Your task to perform on an android device: Open the map Image 0: 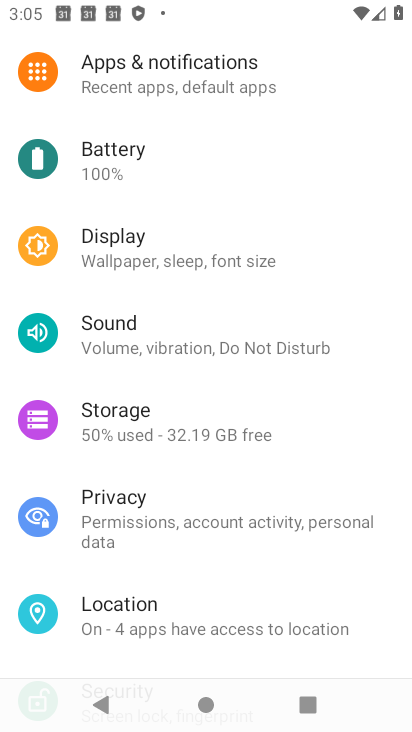
Step 0: press home button
Your task to perform on an android device: Open the map Image 1: 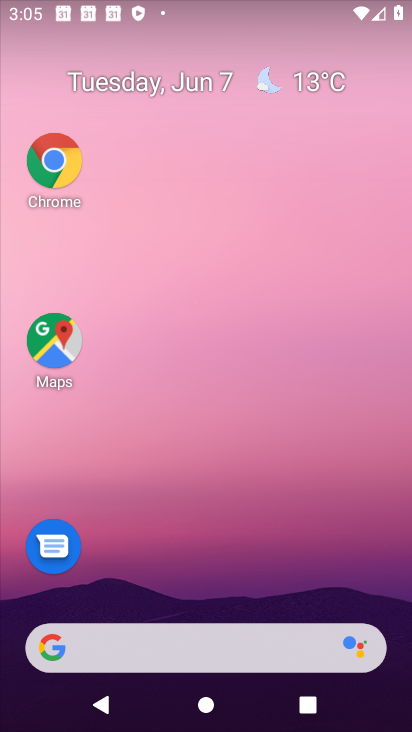
Step 1: click (65, 353)
Your task to perform on an android device: Open the map Image 2: 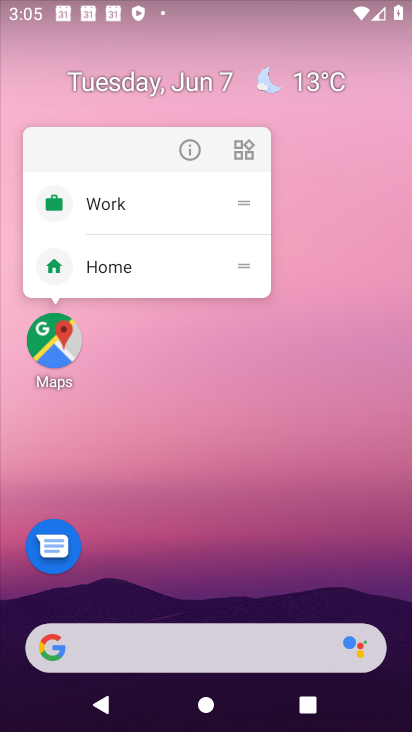
Step 2: click (198, 145)
Your task to perform on an android device: Open the map Image 3: 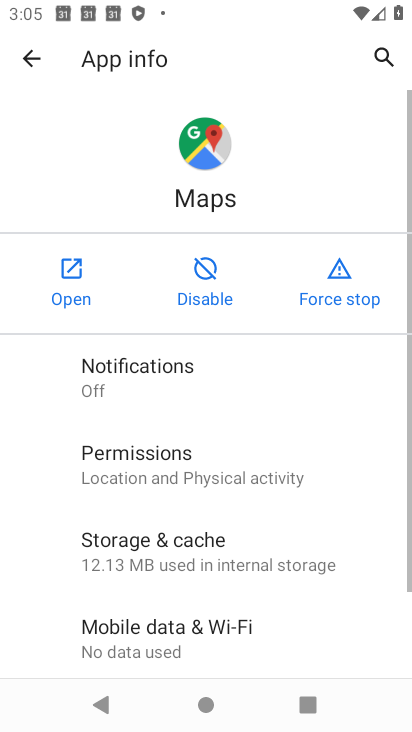
Step 3: click (78, 275)
Your task to perform on an android device: Open the map Image 4: 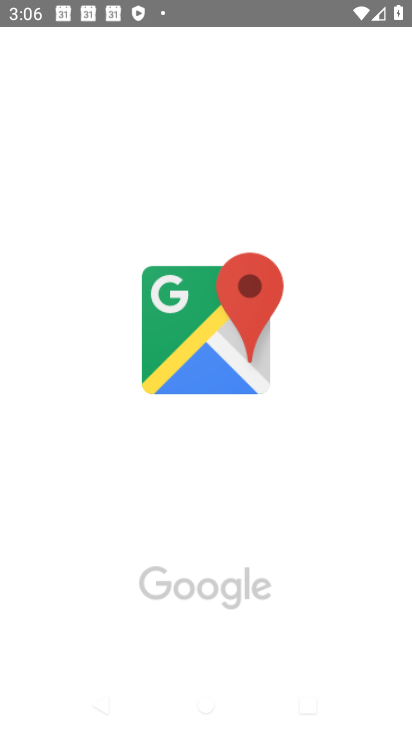
Step 4: drag from (248, 655) to (278, 249)
Your task to perform on an android device: Open the map Image 5: 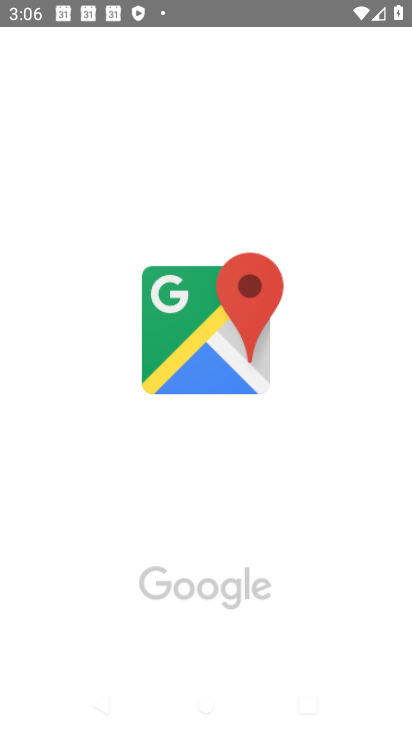
Step 5: drag from (275, 219) to (276, 519)
Your task to perform on an android device: Open the map Image 6: 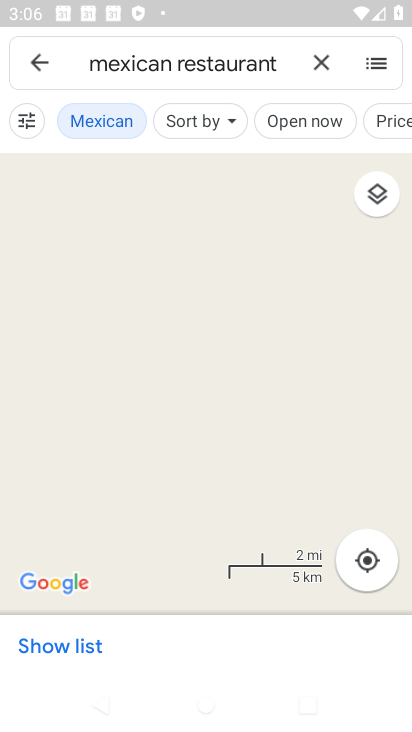
Step 6: click (51, 61)
Your task to perform on an android device: Open the map Image 7: 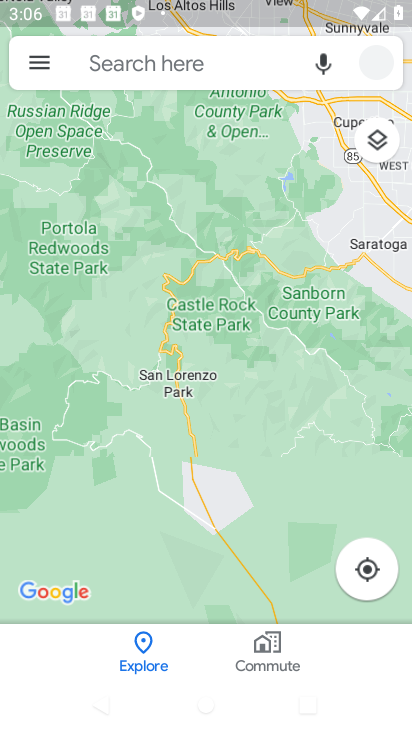
Step 7: task complete